Your task to perform on an android device: Check the news Image 0: 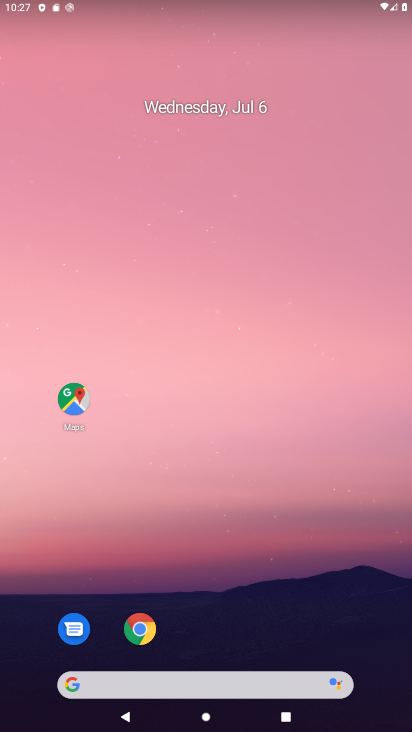
Step 0: click (227, 674)
Your task to perform on an android device: Check the news Image 1: 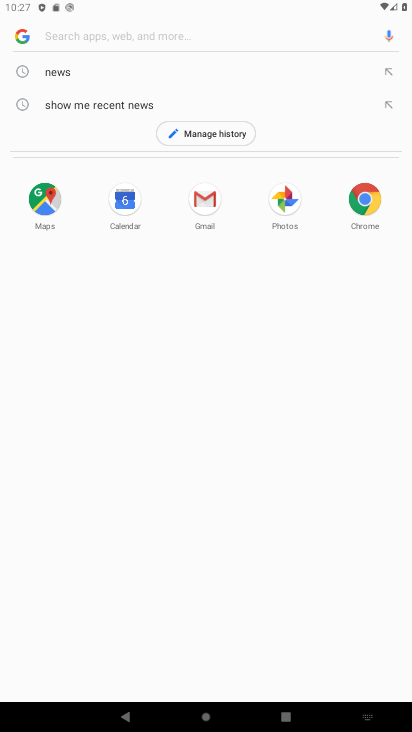
Step 1: click (83, 79)
Your task to perform on an android device: Check the news Image 2: 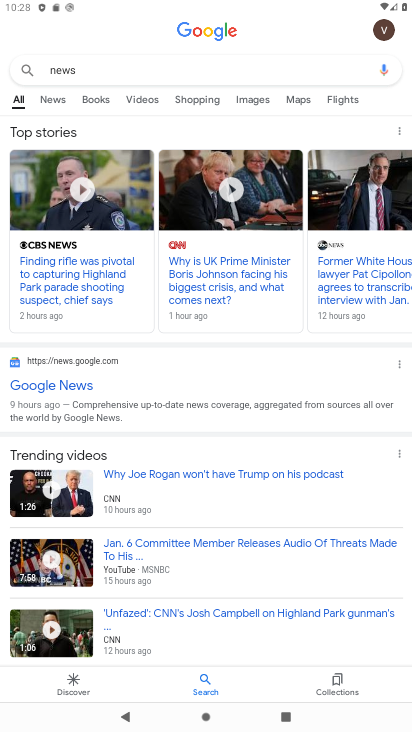
Step 2: task complete